Your task to perform on an android device: Turn off the flashlight Image 0: 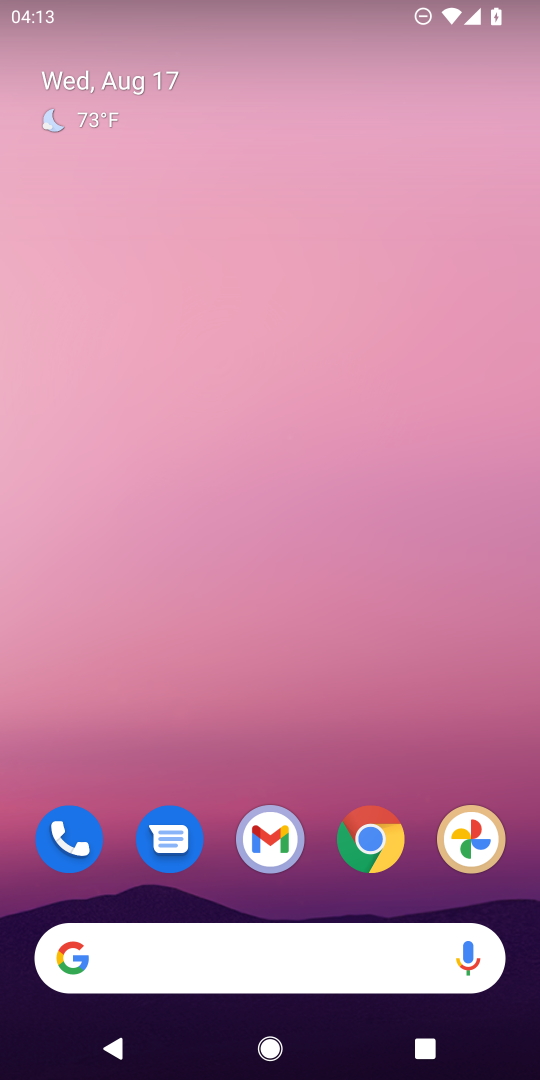
Step 0: drag from (315, 843) to (244, 146)
Your task to perform on an android device: Turn off the flashlight Image 1: 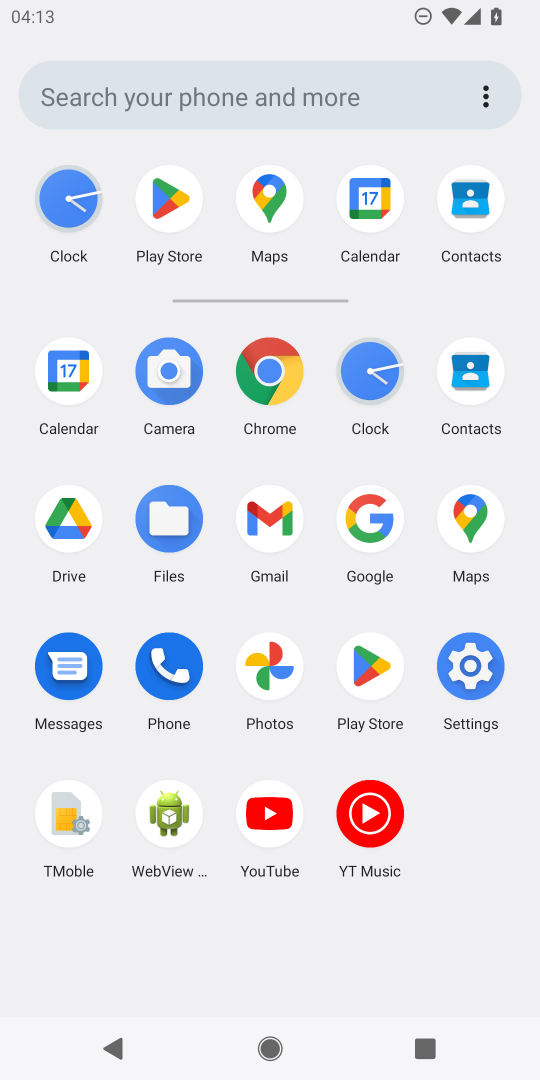
Step 1: click (461, 679)
Your task to perform on an android device: Turn off the flashlight Image 2: 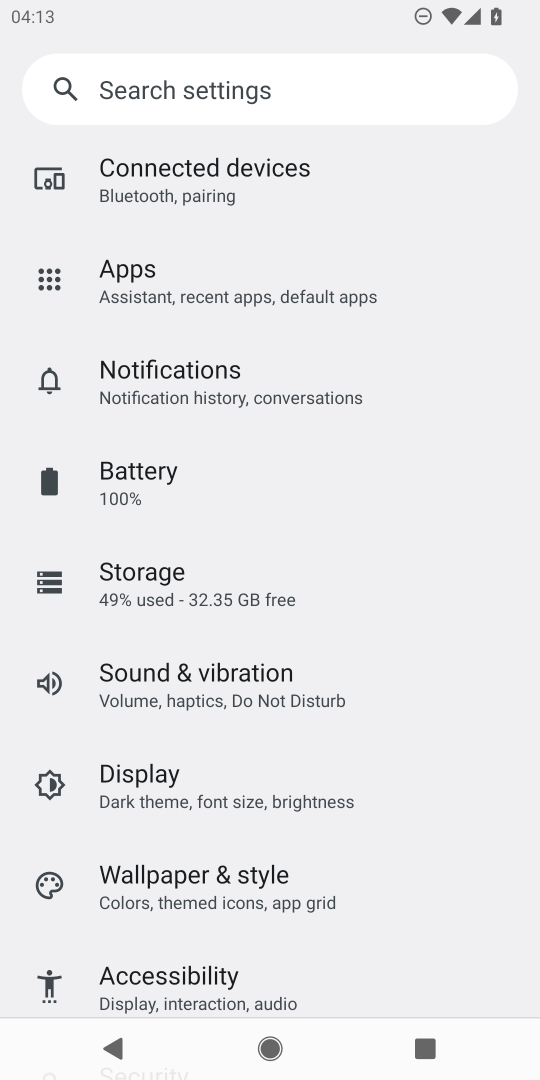
Step 2: task complete